Your task to perform on an android device: turn off airplane mode Image 0: 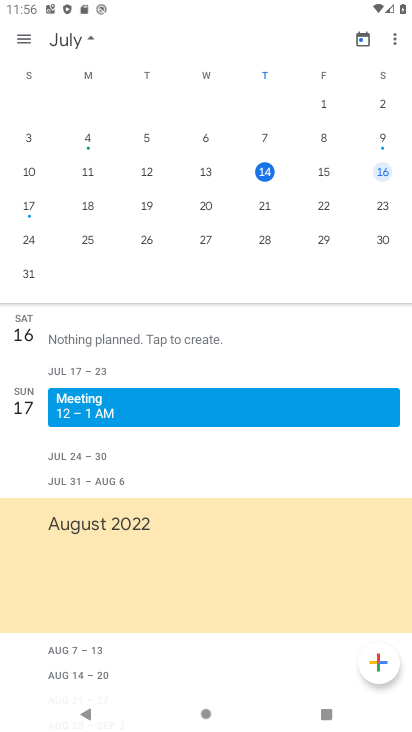
Step 0: press home button
Your task to perform on an android device: turn off airplane mode Image 1: 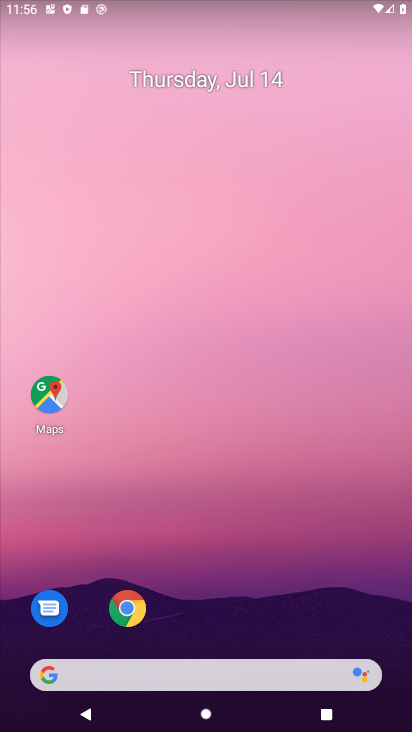
Step 1: drag from (261, 690) to (279, 101)
Your task to perform on an android device: turn off airplane mode Image 2: 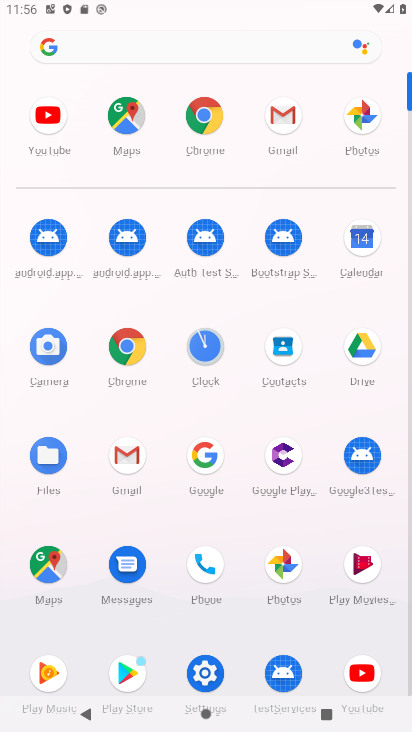
Step 2: click (208, 676)
Your task to perform on an android device: turn off airplane mode Image 3: 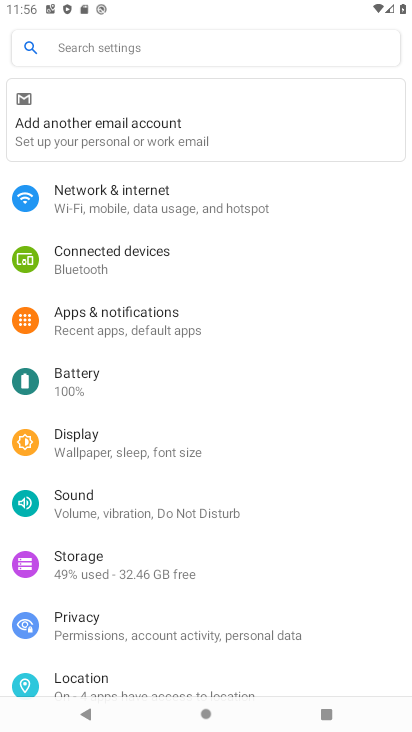
Step 3: click (133, 200)
Your task to perform on an android device: turn off airplane mode Image 4: 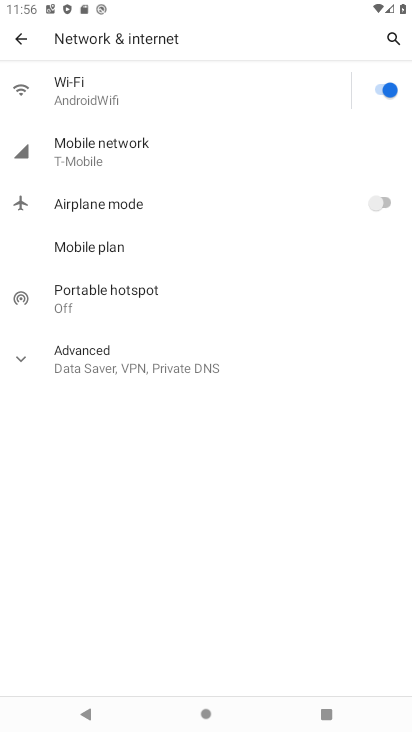
Step 4: task complete